Your task to perform on an android device: open app "Fetch Rewards" (install if not already installed) Image 0: 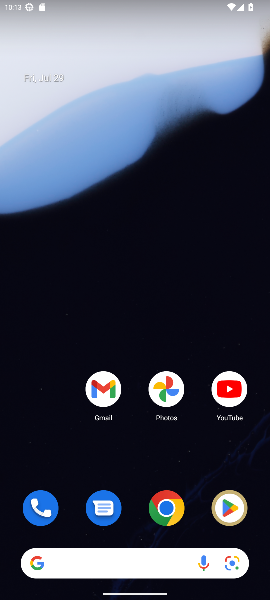
Step 0: drag from (66, 565) to (154, 74)
Your task to perform on an android device: open app "Fetch Rewards" (install if not already installed) Image 1: 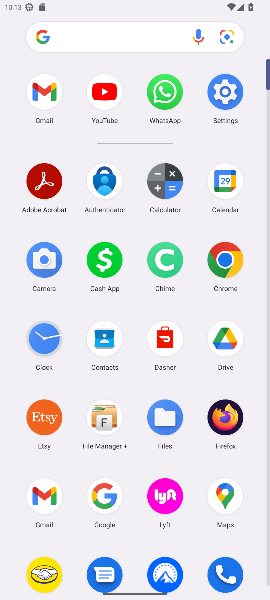
Step 1: drag from (174, 476) to (224, 187)
Your task to perform on an android device: open app "Fetch Rewards" (install if not already installed) Image 2: 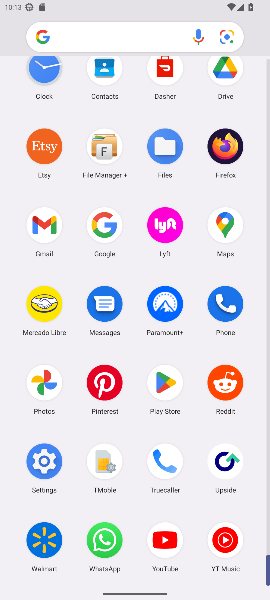
Step 2: click (164, 384)
Your task to perform on an android device: open app "Fetch Rewards" (install if not already installed) Image 3: 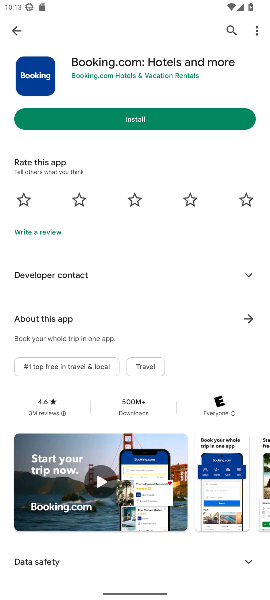
Step 3: click (227, 23)
Your task to perform on an android device: open app "Fetch Rewards" (install if not already installed) Image 4: 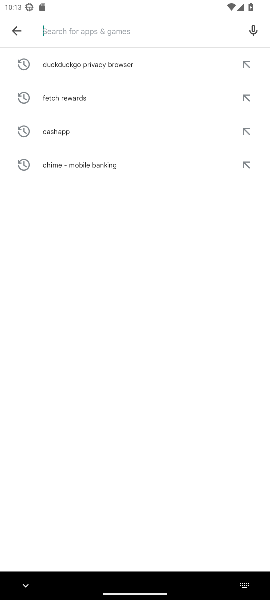
Step 4: type "fetch rewards"
Your task to perform on an android device: open app "Fetch Rewards" (install if not already installed) Image 5: 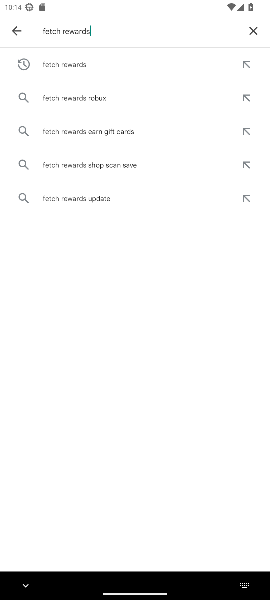
Step 5: click (76, 64)
Your task to perform on an android device: open app "Fetch Rewards" (install if not already installed) Image 6: 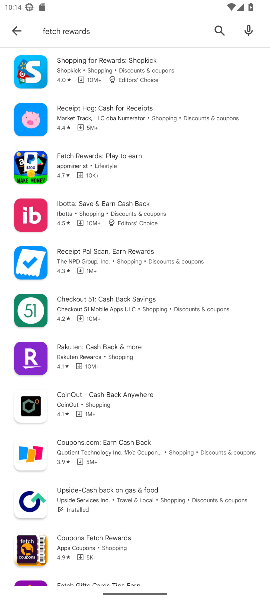
Step 6: task complete